Your task to perform on an android device: Search for Mexican restaurants on Maps Image 0: 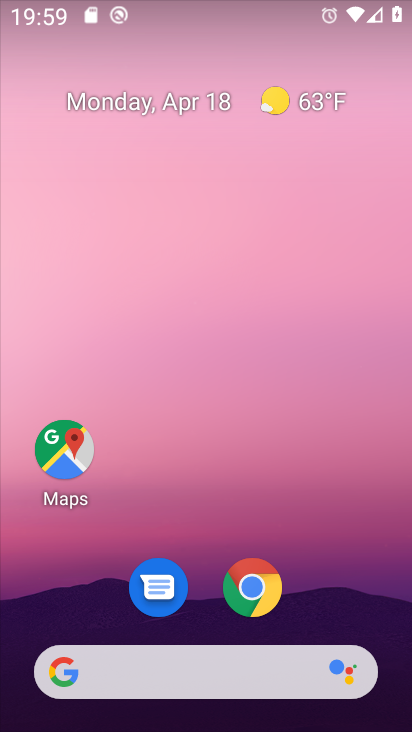
Step 0: click (77, 469)
Your task to perform on an android device: Search for Mexican restaurants on Maps Image 1: 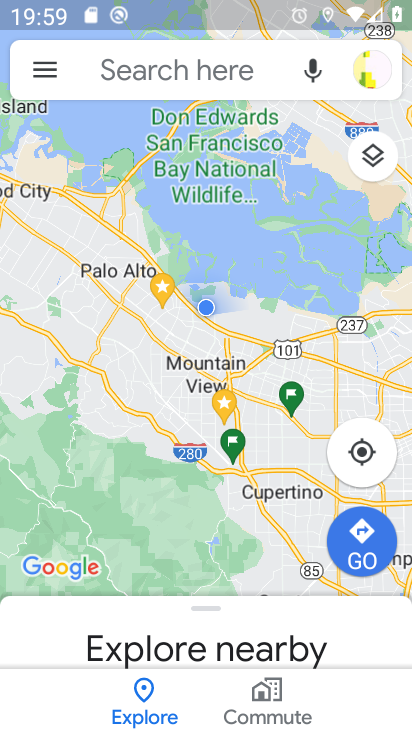
Step 1: click (115, 77)
Your task to perform on an android device: Search for Mexican restaurants on Maps Image 2: 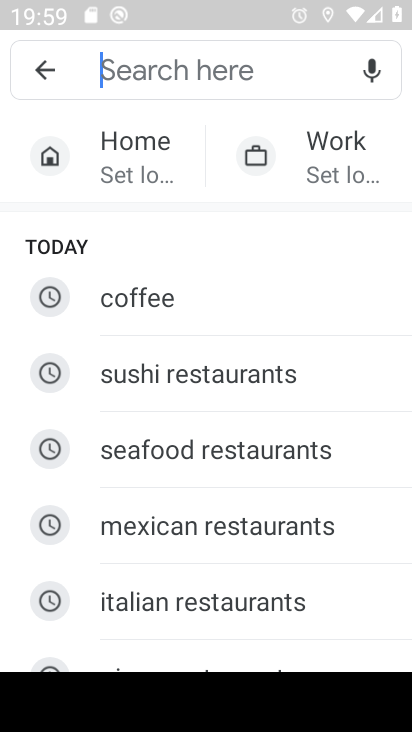
Step 2: click (198, 524)
Your task to perform on an android device: Search for Mexican restaurants on Maps Image 3: 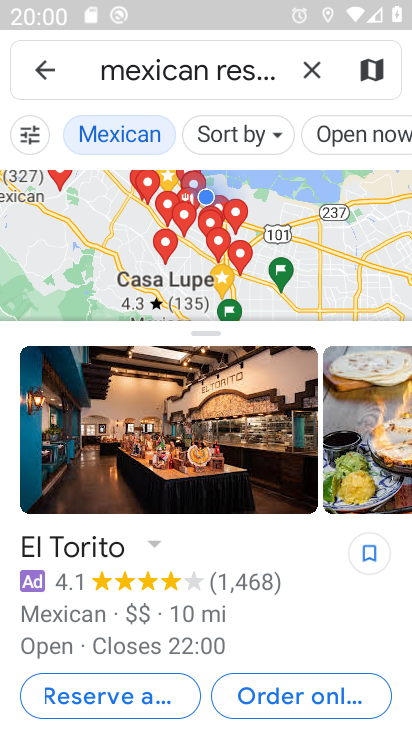
Step 3: task complete